Your task to perform on an android device: search for starred emails in the gmail app Image 0: 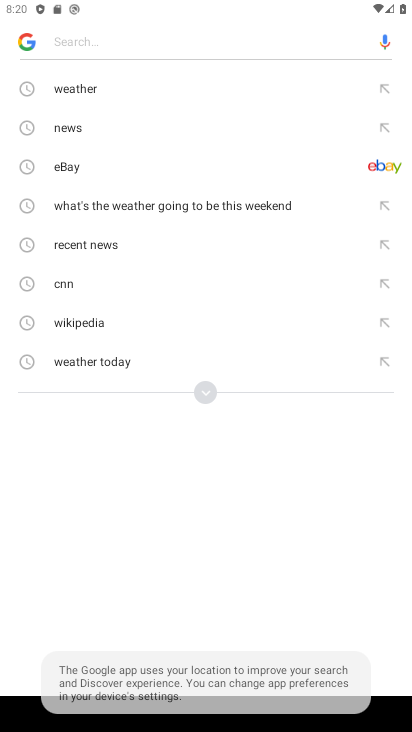
Step 0: press home button
Your task to perform on an android device: search for starred emails in the gmail app Image 1: 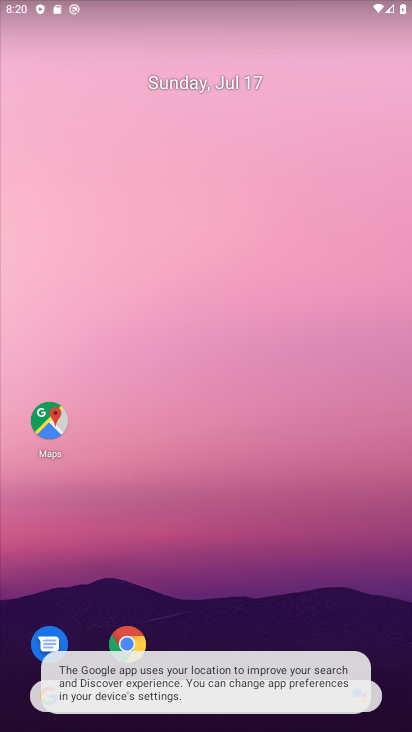
Step 1: drag from (245, 600) to (196, 6)
Your task to perform on an android device: search for starred emails in the gmail app Image 2: 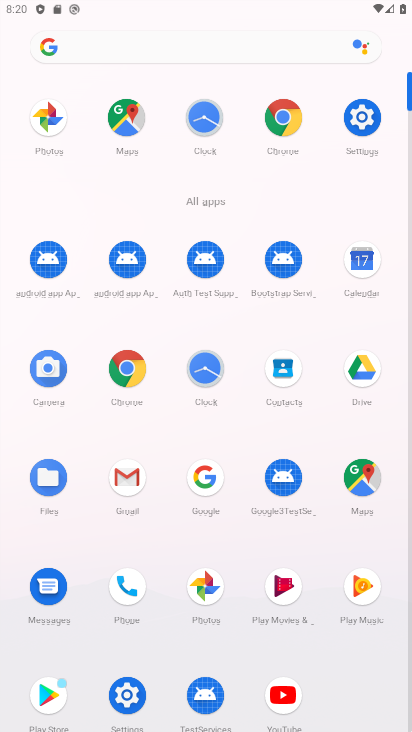
Step 2: click (131, 479)
Your task to perform on an android device: search for starred emails in the gmail app Image 3: 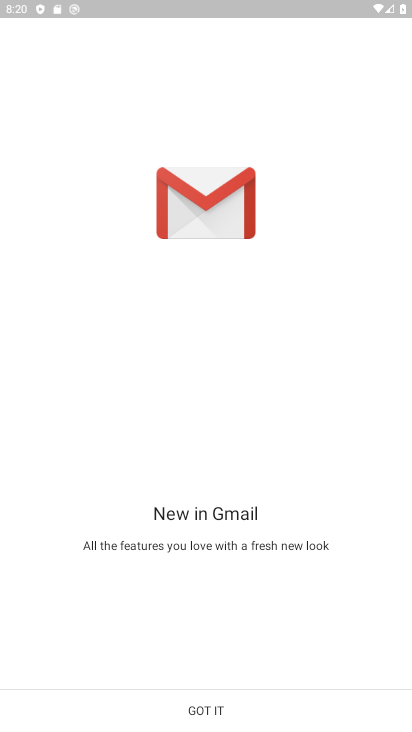
Step 3: click (201, 715)
Your task to perform on an android device: search for starred emails in the gmail app Image 4: 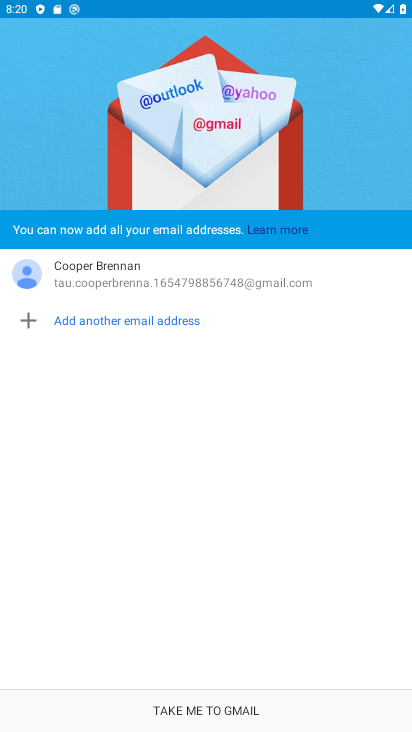
Step 4: click (201, 707)
Your task to perform on an android device: search for starred emails in the gmail app Image 5: 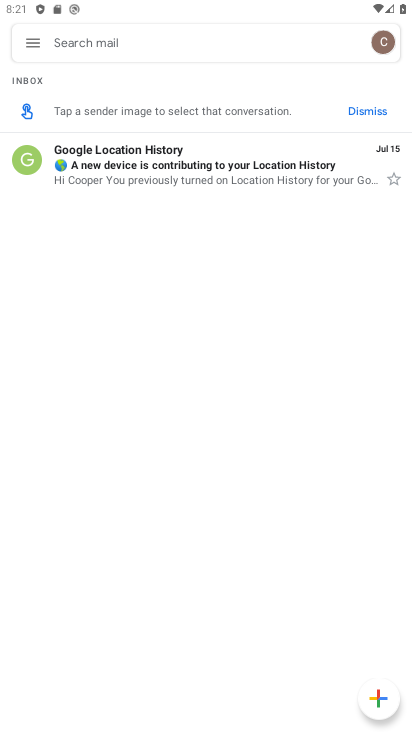
Step 5: click (34, 35)
Your task to perform on an android device: search for starred emails in the gmail app Image 6: 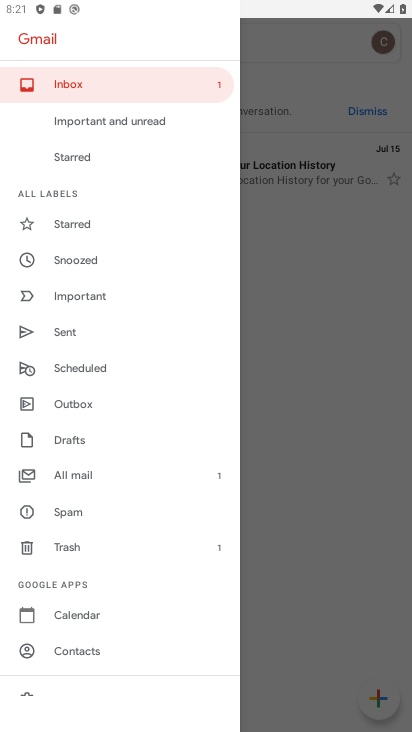
Step 6: click (72, 222)
Your task to perform on an android device: search for starred emails in the gmail app Image 7: 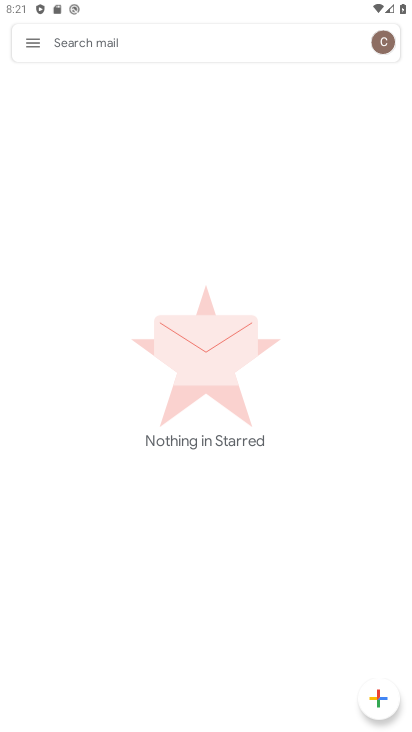
Step 7: task complete